Your task to perform on an android device: turn notification dots off Image 0: 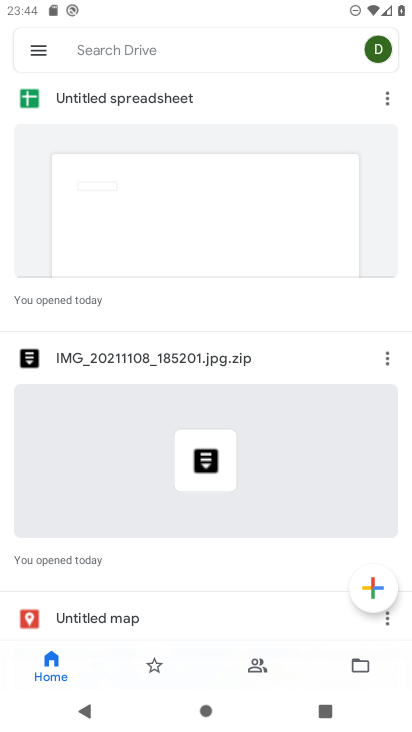
Step 0: press home button
Your task to perform on an android device: turn notification dots off Image 1: 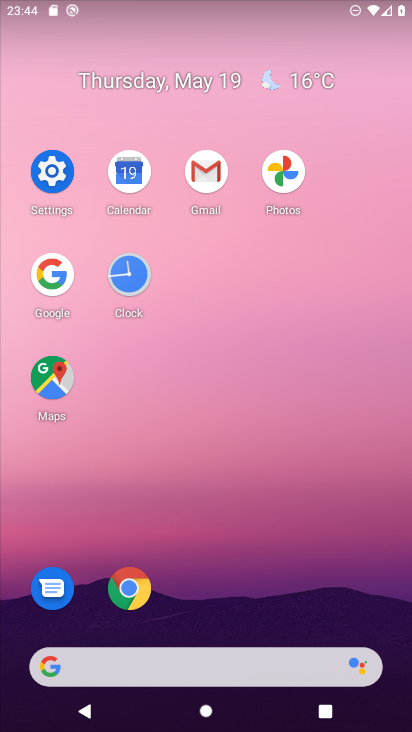
Step 1: click (36, 146)
Your task to perform on an android device: turn notification dots off Image 2: 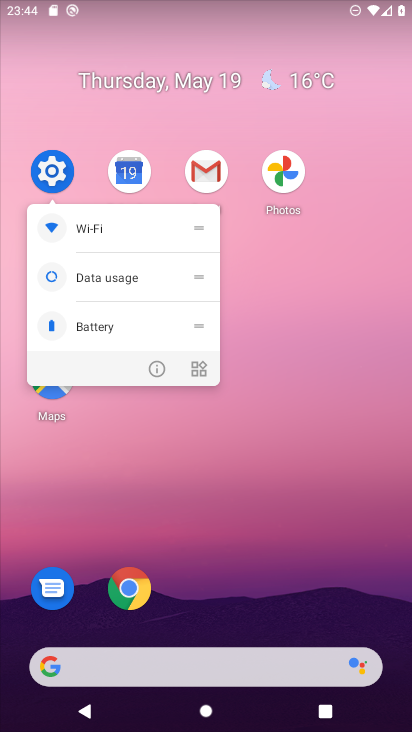
Step 2: click (50, 175)
Your task to perform on an android device: turn notification dots off Image 3: 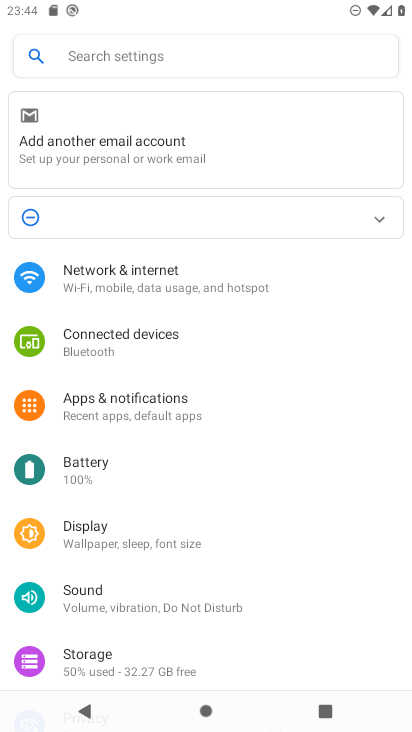
Step 3: click (203, 409)
Your task to perform on an android device: turn notification dots off Image 4: 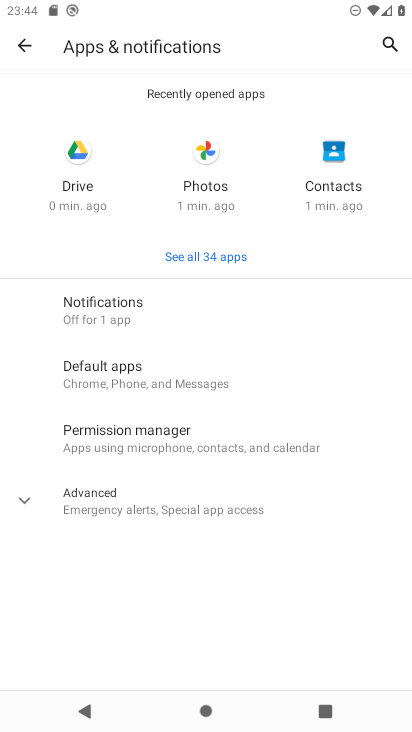
Step 4: click (187, 292)
Your task to perform on an android device: turn notification dots off Image 5: 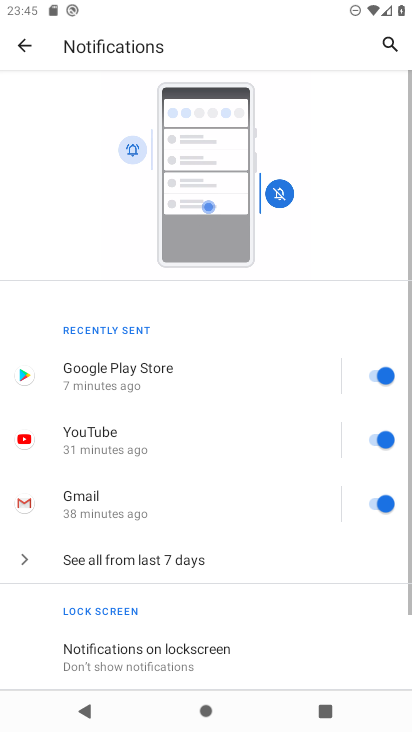
Step 5: drag from (152, 612) to (200, 209)
Your task to perform on an android device: turn notification dots off Image 6: 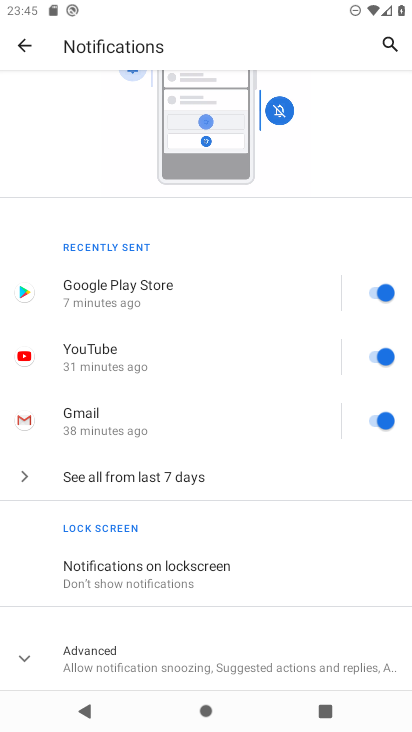
Step 6: click (185, 662)
Your task to perform on an android device: turn notification dots off Image 7: 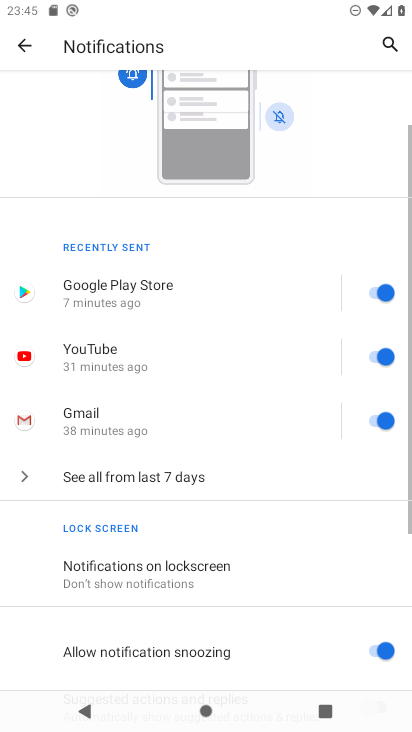
Step 7: drag from (172, 642) to (169, 227)
Your task to perform on an android device: turn notification dots off Image 8: 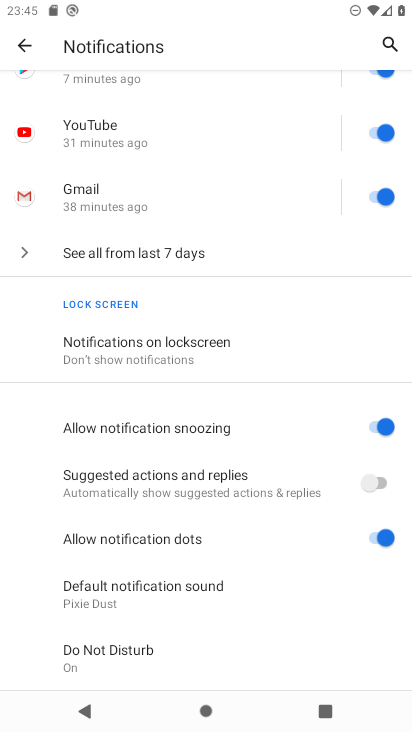
Step 8: click (385, 539)
Your task to perform on an android device: turn notification dots off Image 9: 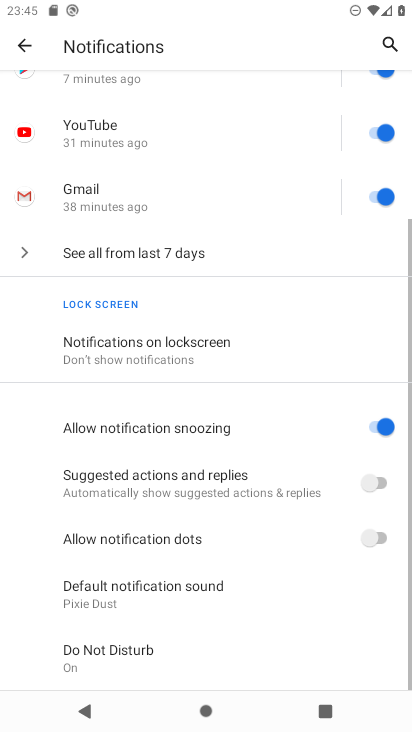
Step 9: task complete